Your task to perform on an android device: What's the weather going to be tomorrow? Image 0: 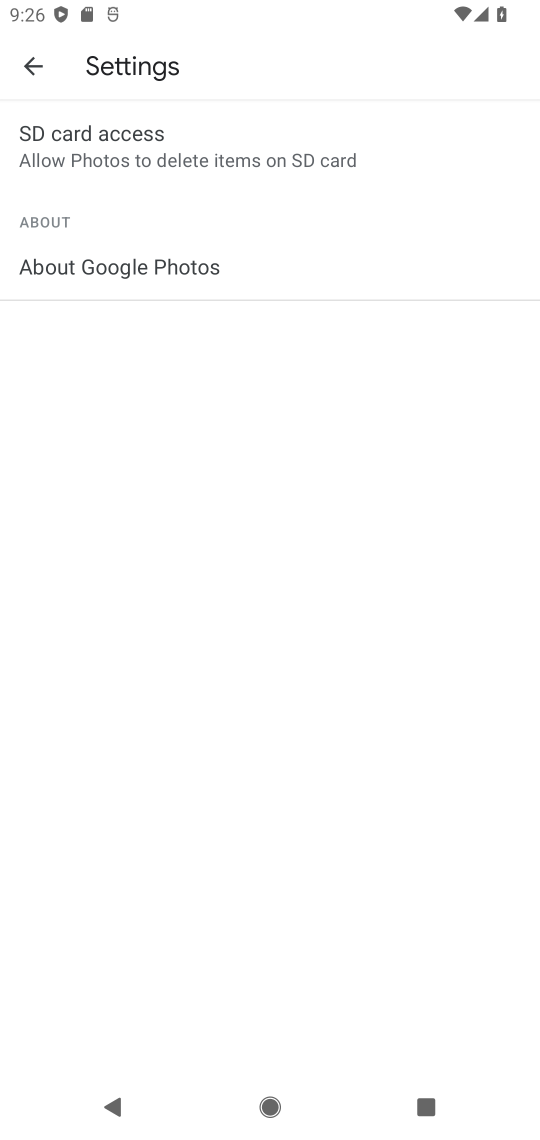
Step 0: press back button
Your task to perform on an android device: What's the weather going to be tomorrow? Image 1: 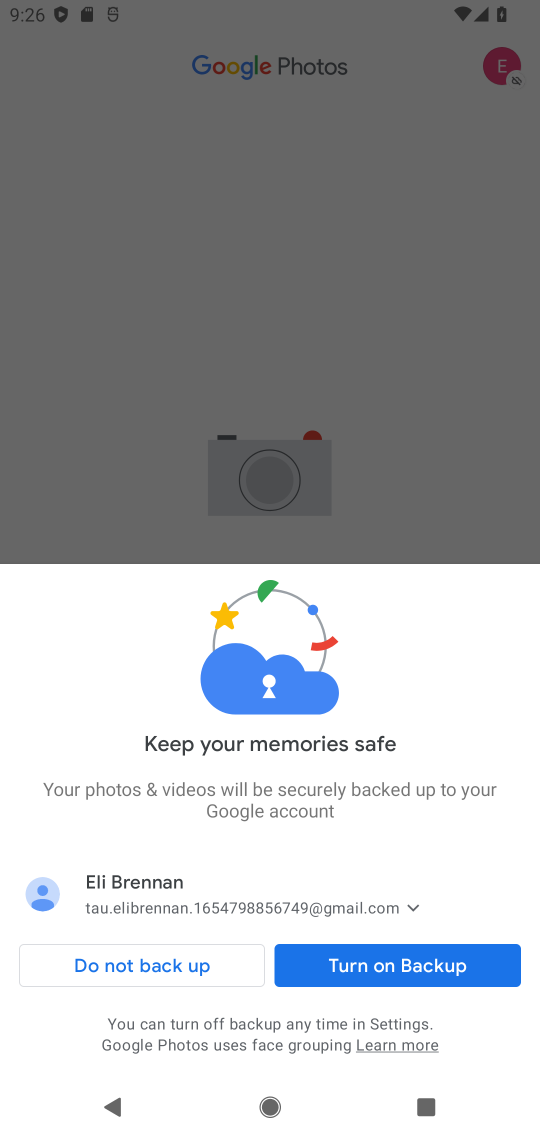
Step 1: press home button
Your task to perform on an android device: What's the weather going to be tomorrow? Image 2: 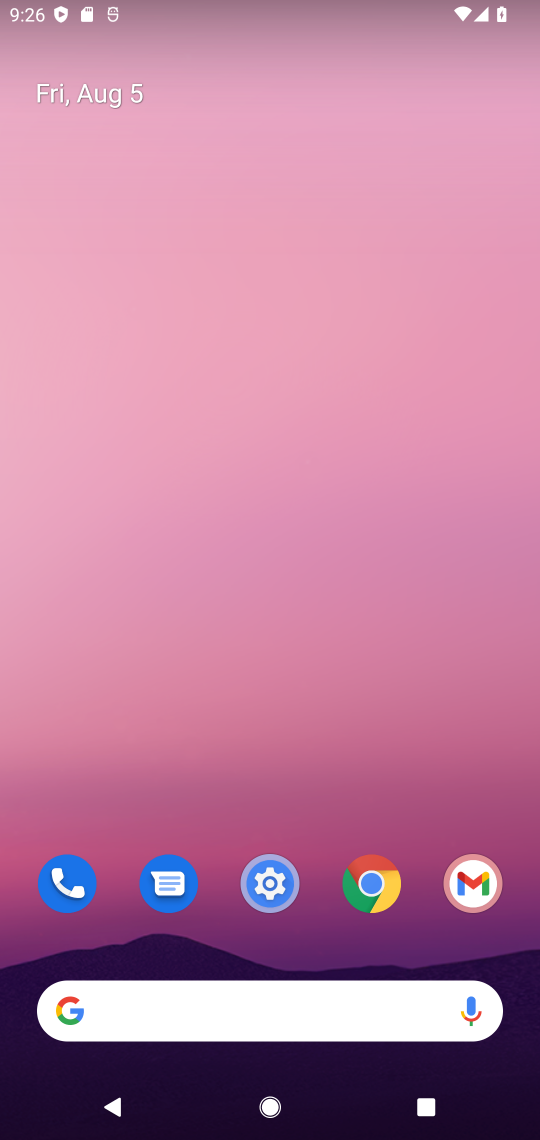
Step 2: click (220, 1006)
Your task to perform on an android device: What's the weather going to be tomorrow? Image 3: 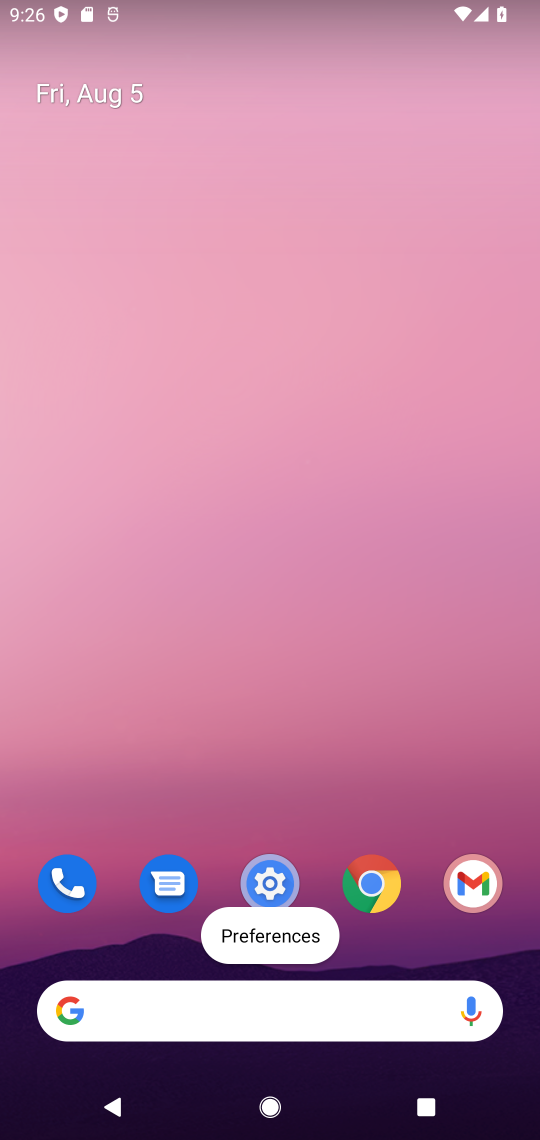
Step 3: click (235, 1002)
Your task to perform on an android device: What's the weather going to be tomorrow? Image 4: 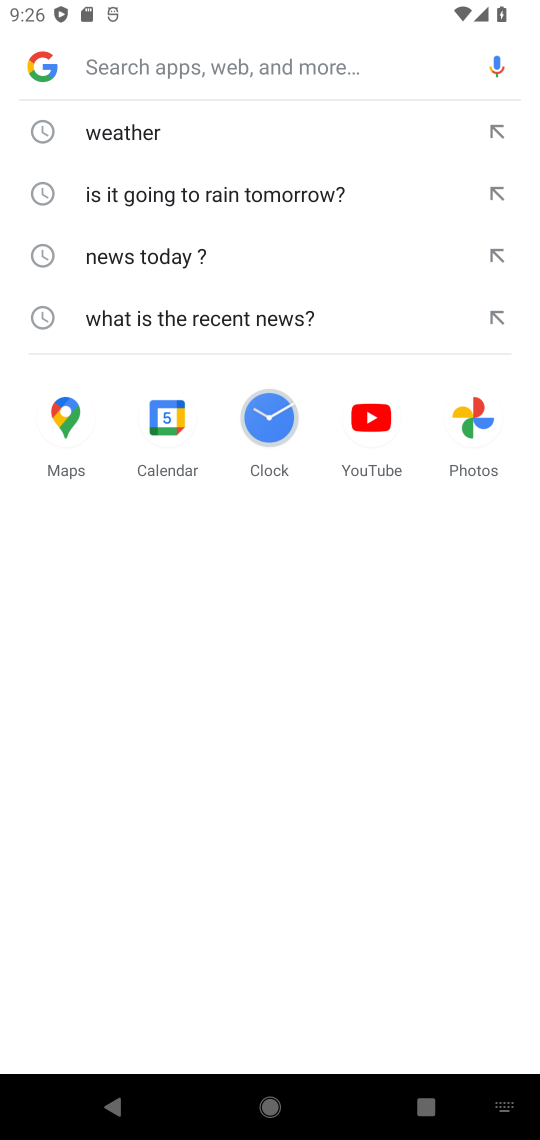
Step 4: click (157, 127)
Your task to perform on an android device: What's the weather going to be tomorrow? Image 5: 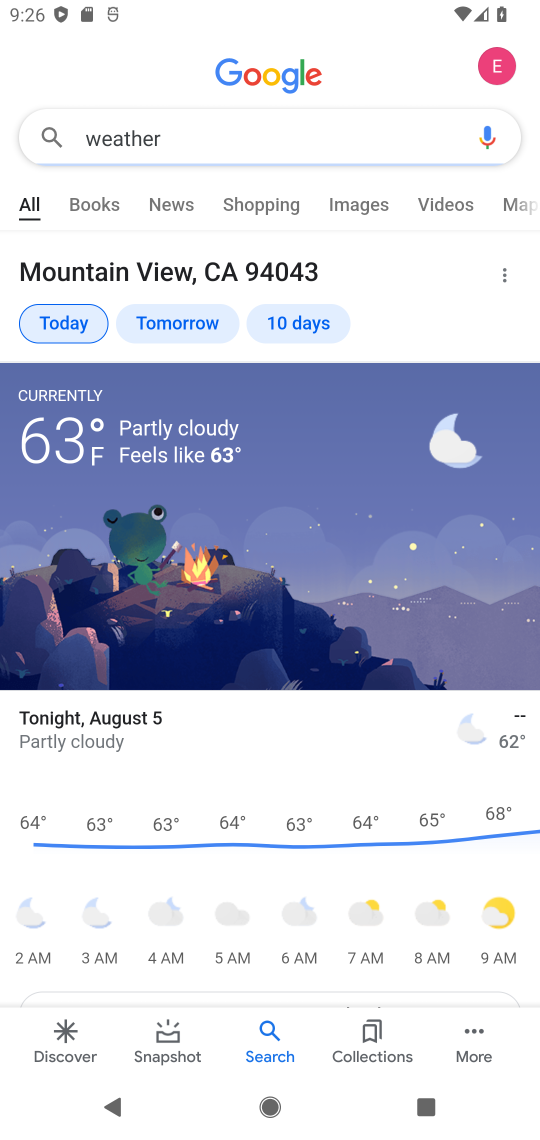
Step 5: click (179, 320)
Your task to perform on an android device: What's the weather going to be tomorrow? Image 6: 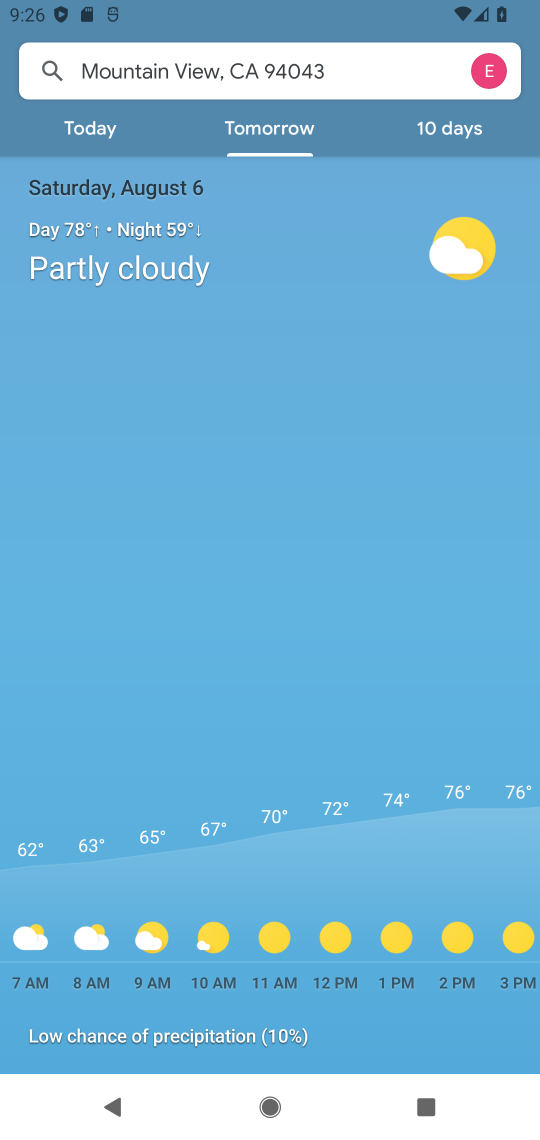
Step 6: task complete